Your task to perform on an android device: Open wifi settings Image 0: 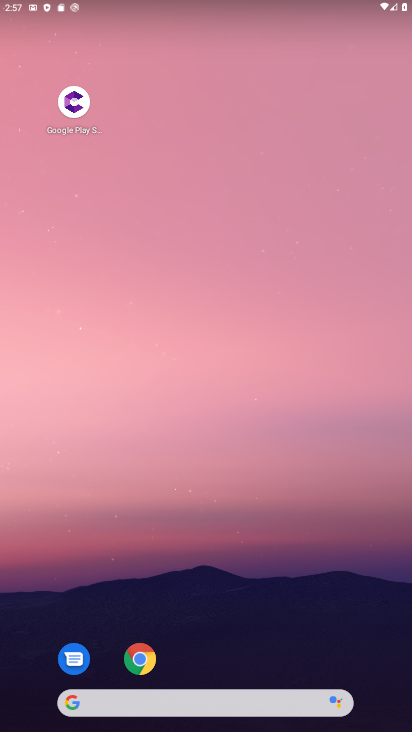
Step 0: drag from (167, 8) to (218, 548)
Your task to perform on an android device: Open wifi settings Image 1: 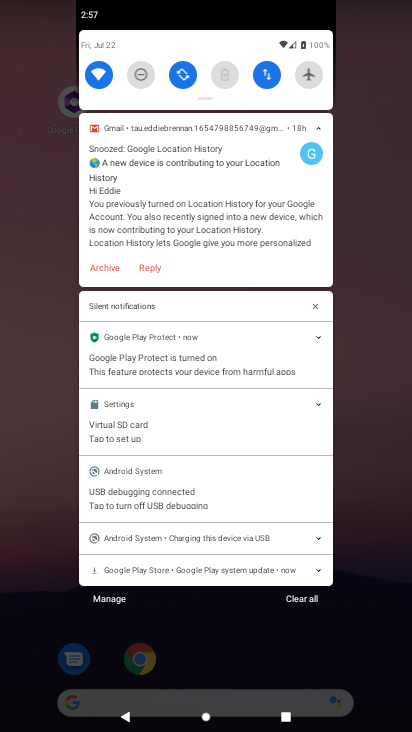
Step 1: click (102, 80)
Your task to perform on an android device: Open wifi settings Image 2: 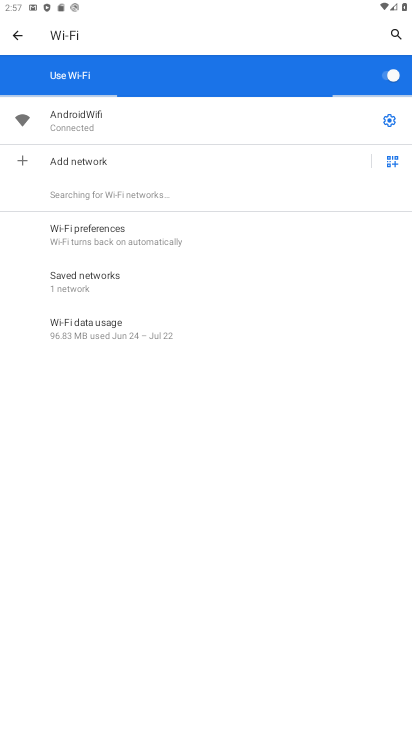
Step 2: task complete